Your task to perform on an android device: Turn on the flashlight Image 0: 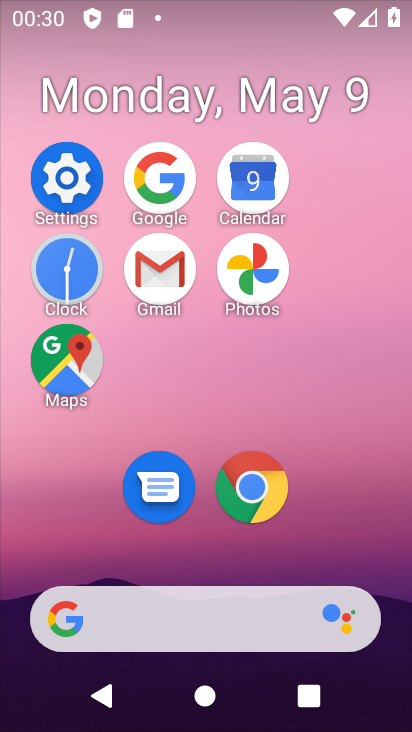
Step 0: drag from (259, 2) to (249, 342)
Your task to perform on an android device: Turn on the flashlight Image 1: 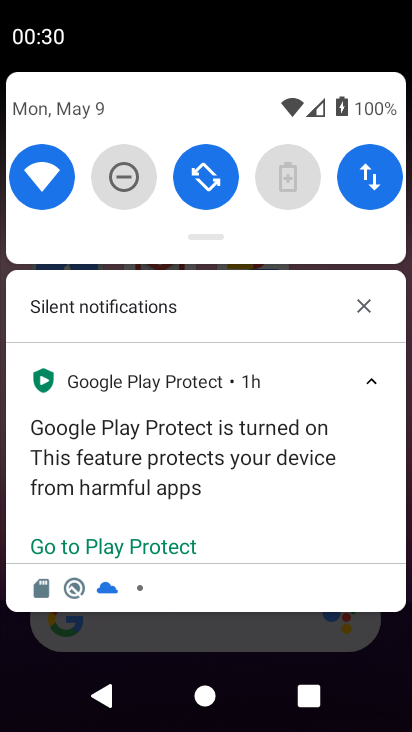
Step 1: task complete